Your task to perform on an android device: Go to CNN.com Image 0: 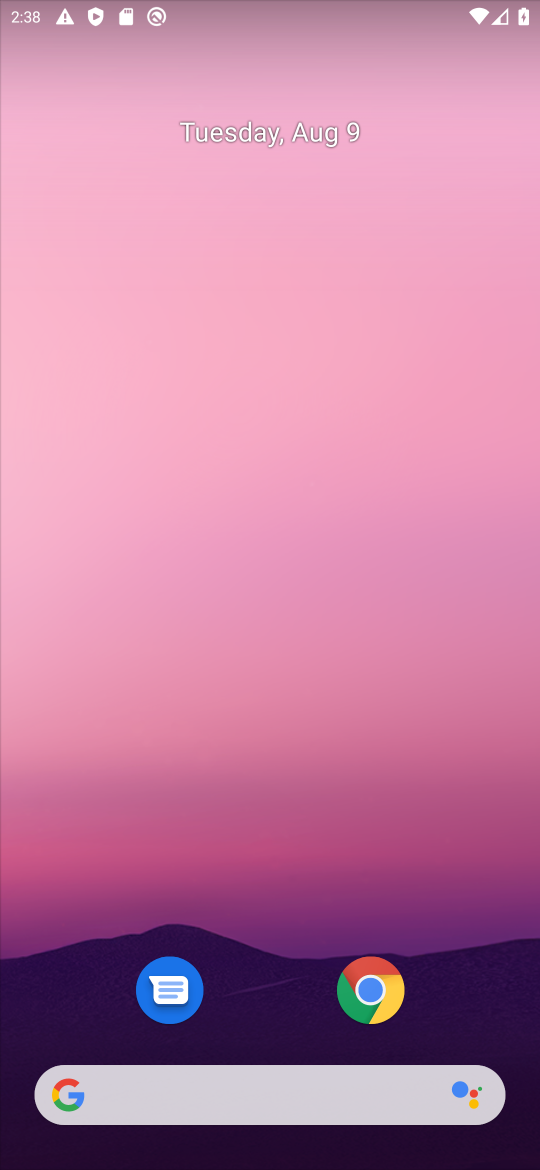
Step 0: drag from (194, 1064) to (332, 144)
Your task to perform on an android device: Go to CNN.com Image 1: 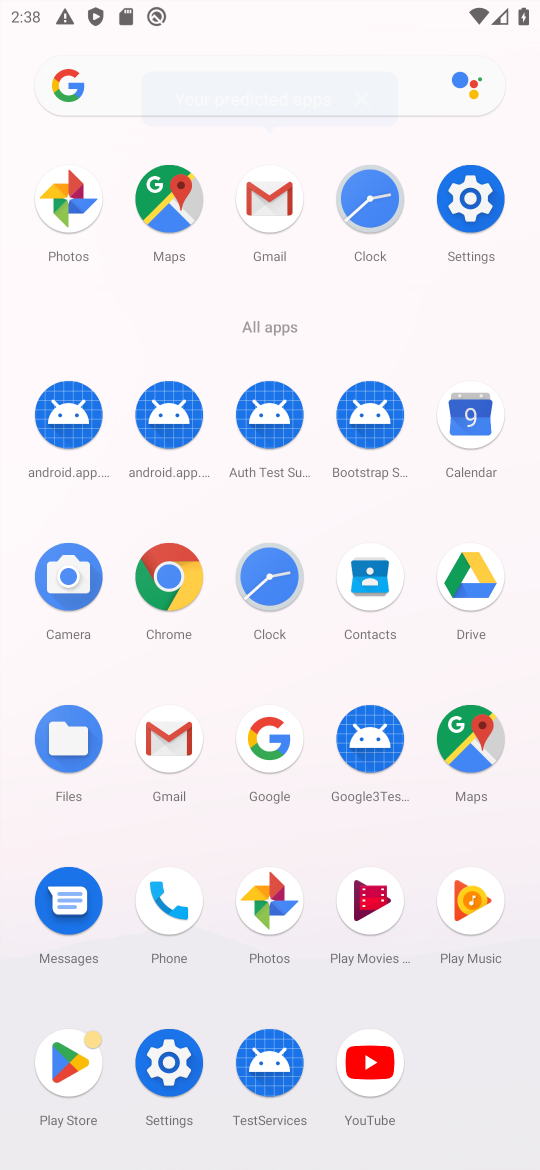
Step 1: click (181, 577)
Your task to perform on an android device: Go to CNN.com Image 2: 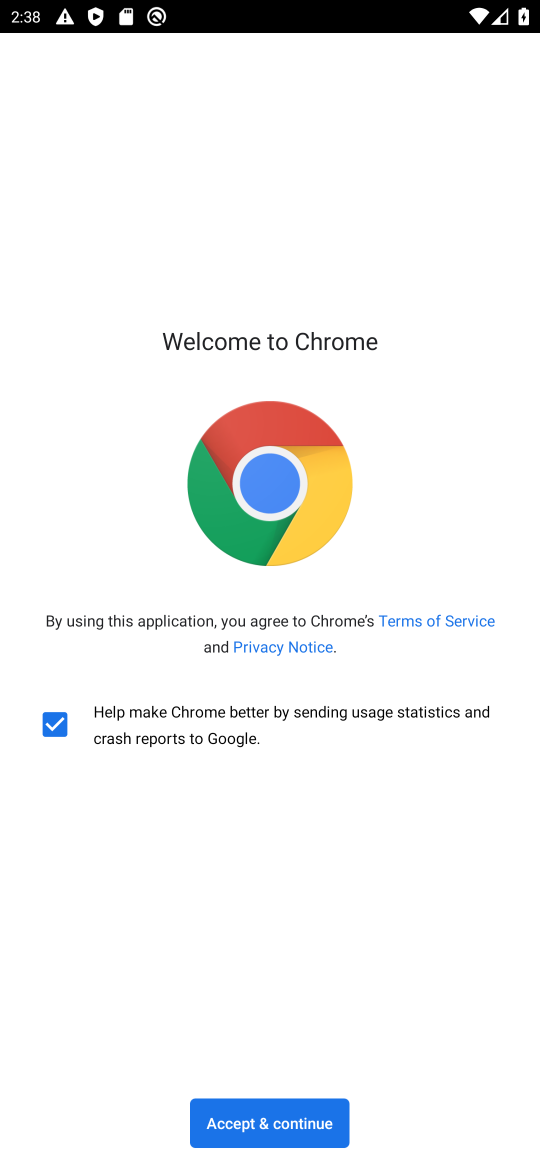
Step 2: click (282, 1121)
Your task to perform on an android device: Go to CNN.com Image 3: 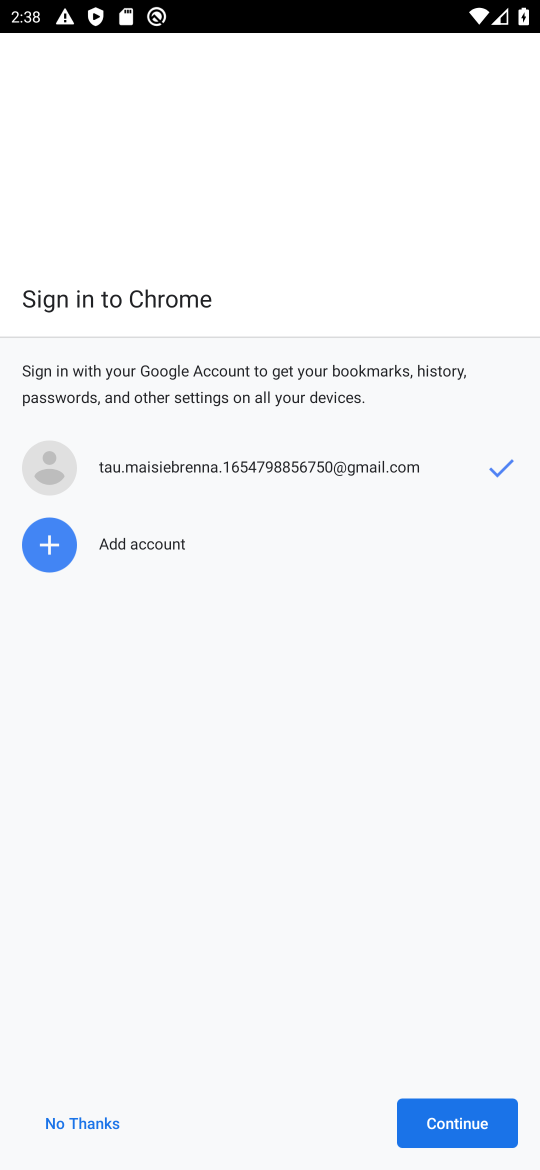
Step 3: click (73, 1120)
Your task to perform on an android device: Go to CNN.com Image 4: 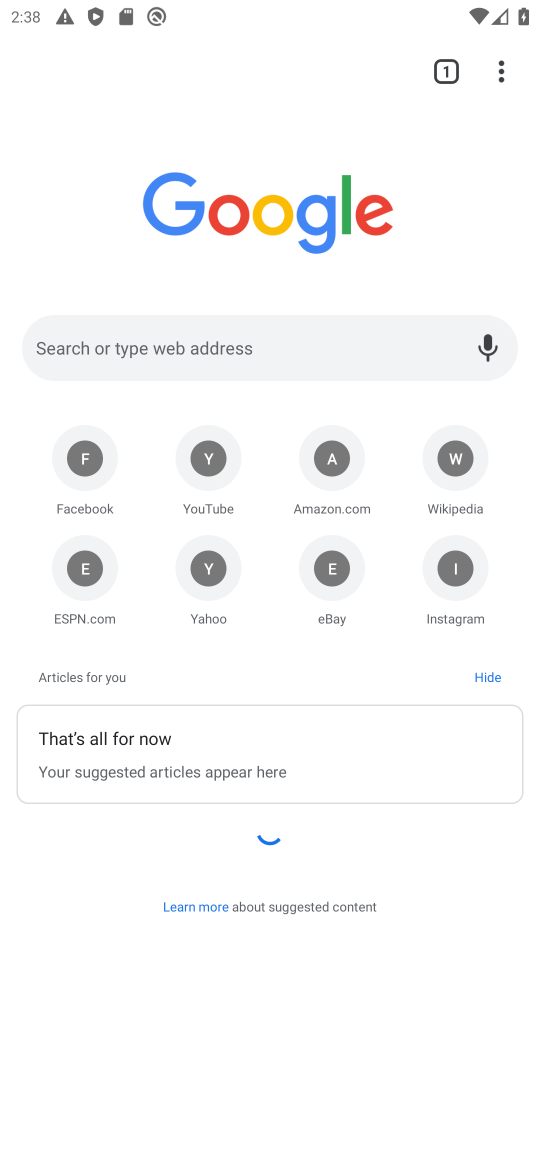
Step 4: click (306, 62)
Your task to perform on an android device: Go to CNN.com Image 5: 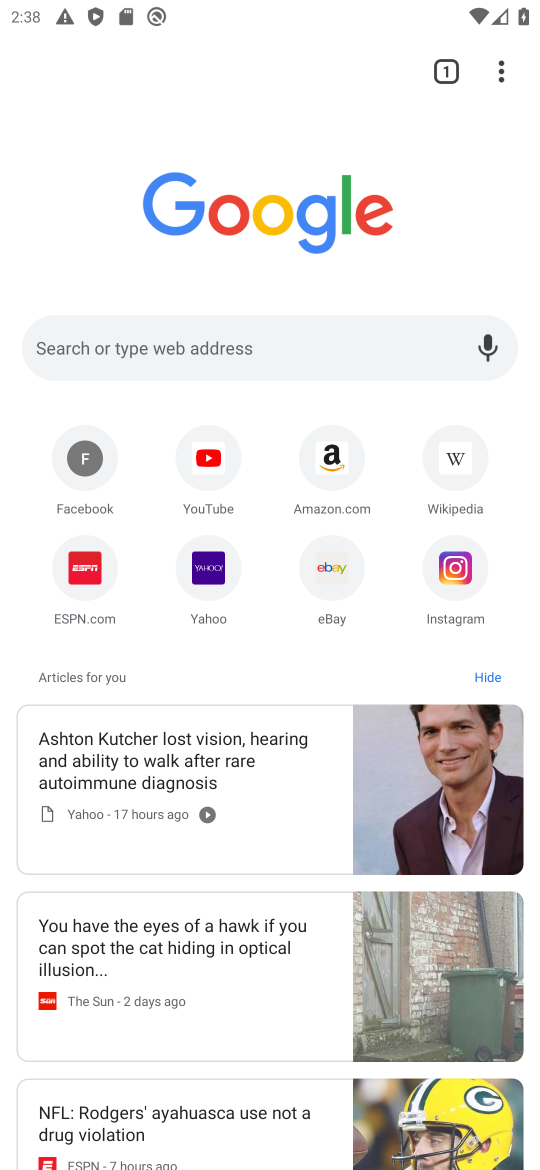
Step 5: click (264, 356)
Your task to perform on an android device: Go to CNN.com Image 6: 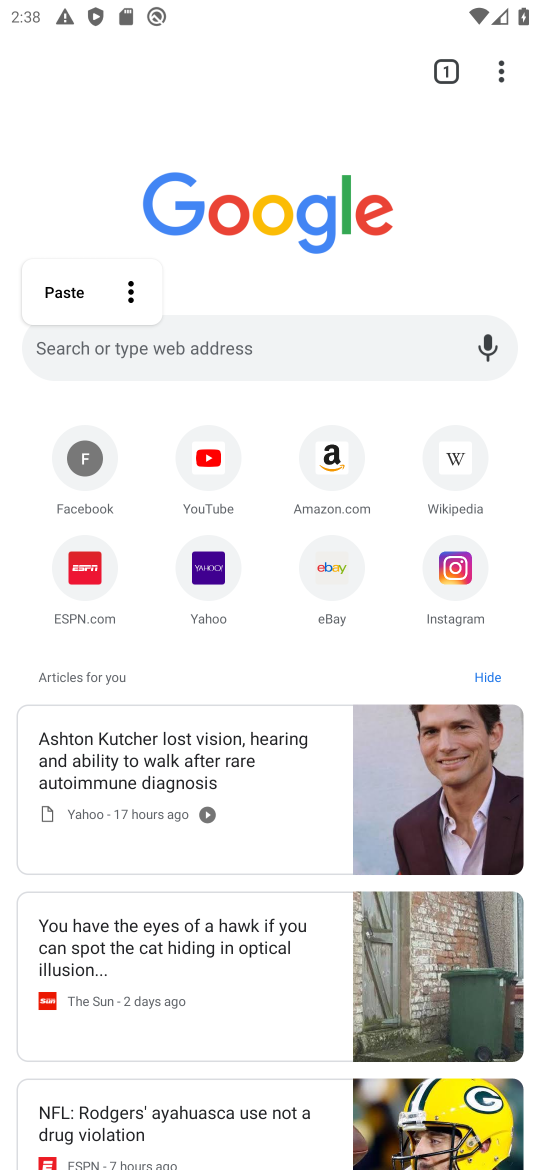
Step 6: type "cnn.com"
Your task to perform on an android device: Go to CNN.com Image 7: 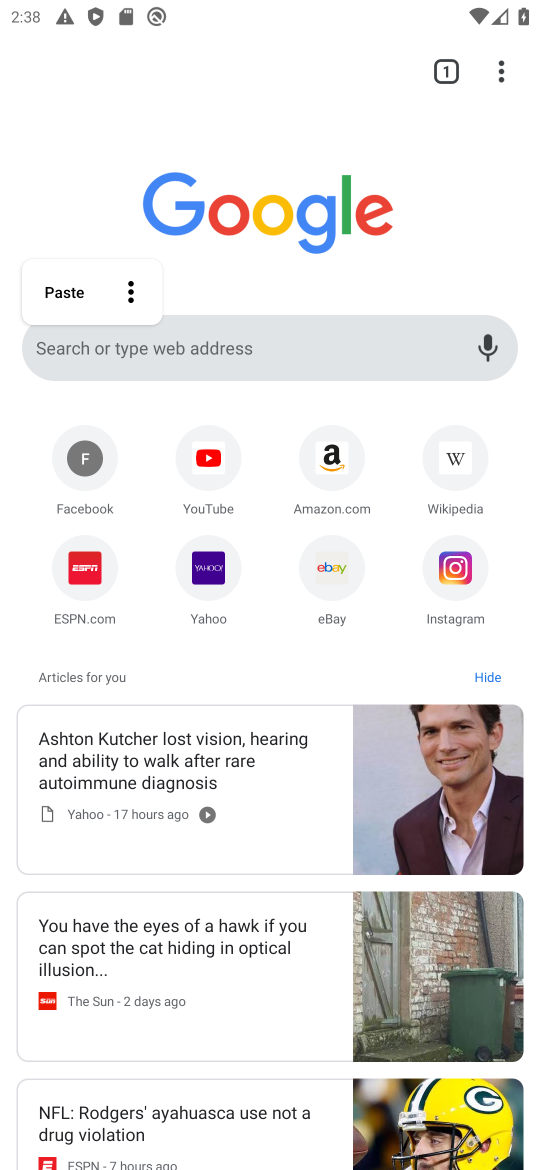
Step 7: click (506, 80)
Your task to perform on an android device: Go to CNN.com Image 8: 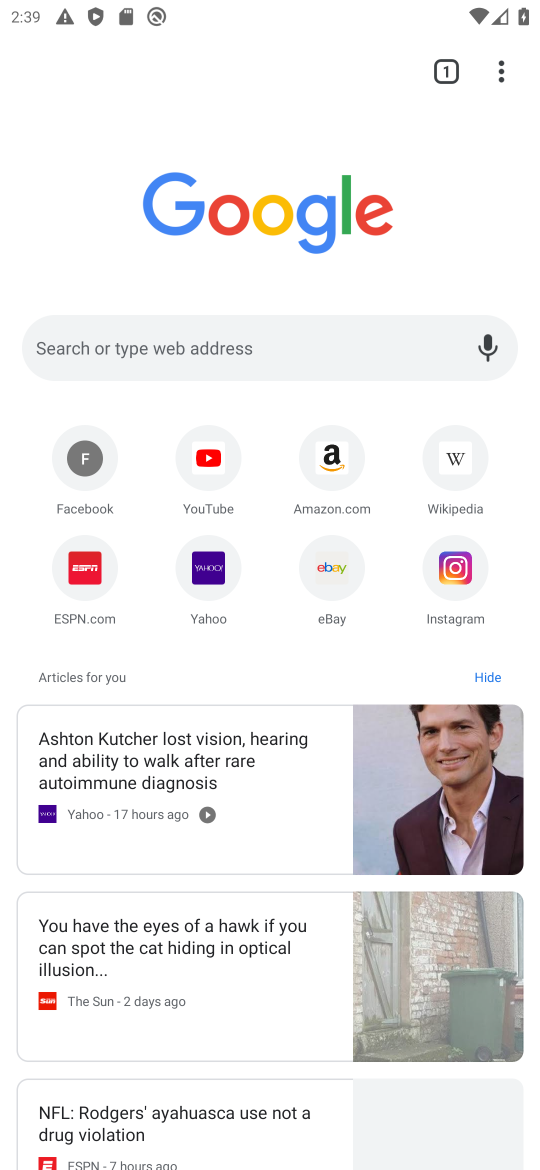
Step 8: click (491, 69)
Your task to perform on an android device: Go to CNN.com Image 9: 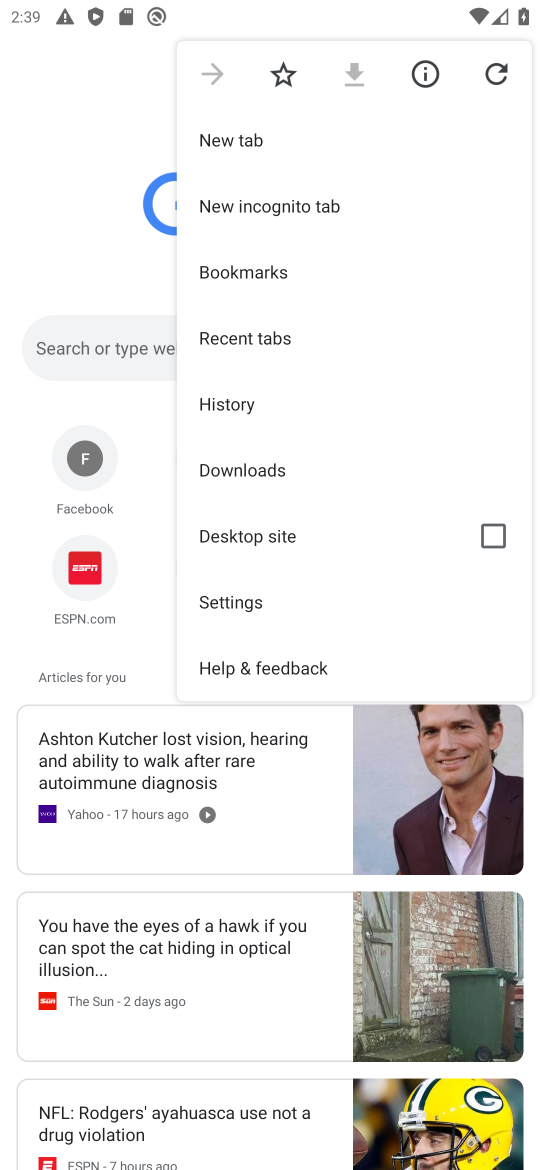
Step 9: click (239, 144)
Your task to perform on an android device: Go to CNN.com Image 10: 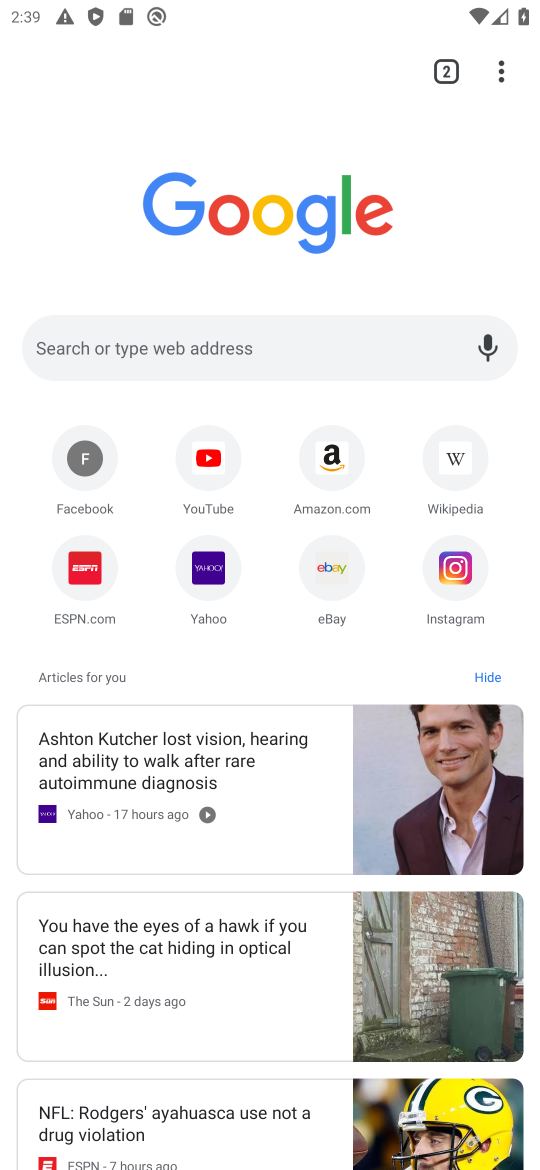
Step 10: task complete